Your task to perform on an android device: search for starred emails in the gmail app Image 0: 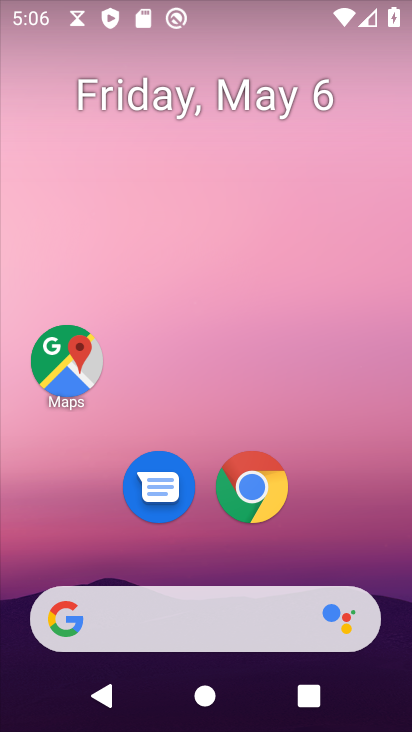
Step 0: drag from (339, 539) to (285, 6)
Your task to perform on an android device: search for starred emails in the gmail app Image 1: 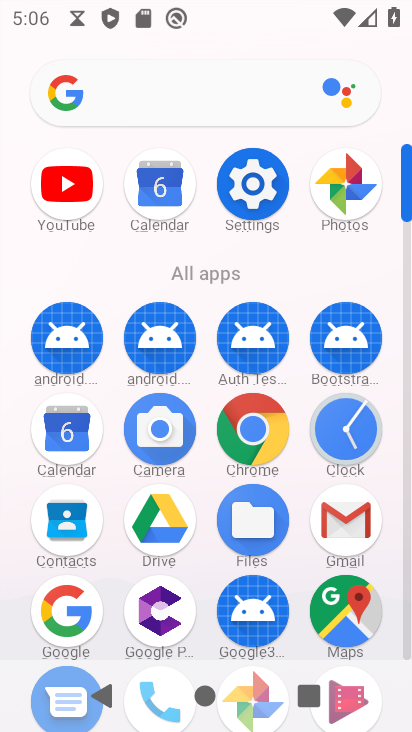
Step 1: click (340, 520)
Your task to perform on an android device: search for starred emails in the gmail app Image 2: 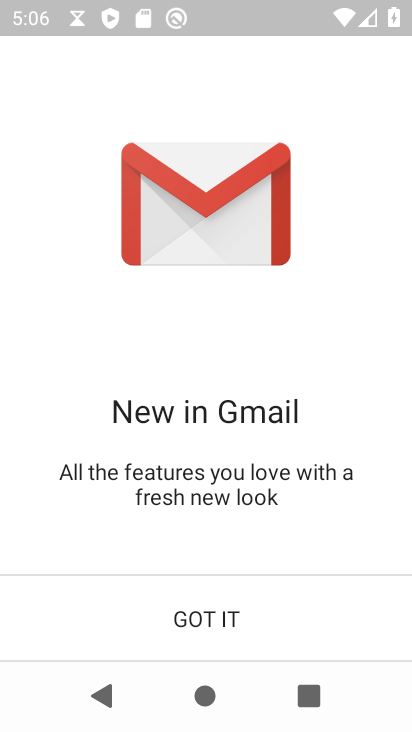
Step 2: click (209, 619)
Your task to perform on an android device: search for starred emails in the gmail app Image 3: 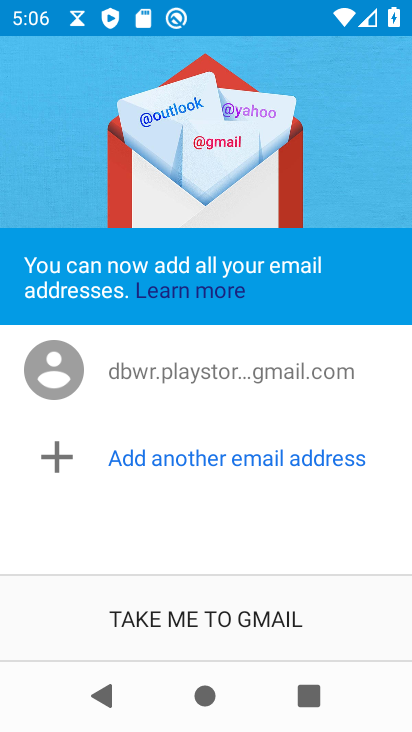
Step 3: click (209, 621)
Your task to perform on an android device: search for starred emails in the gmail app Image 4: 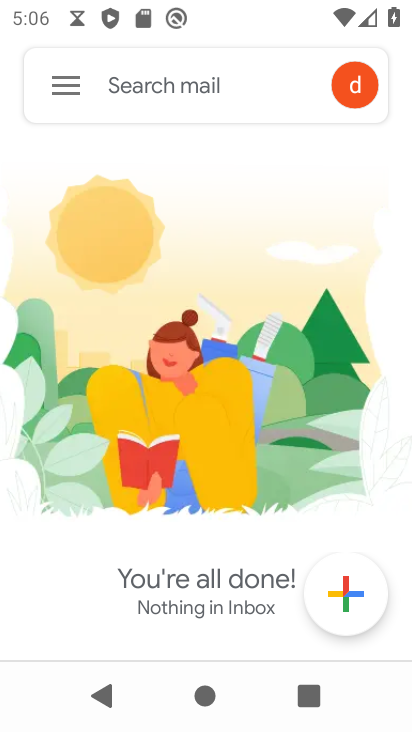
Step 4: click (188, 93)
Your task to perform on an android device: search for starred emails in the gmail app Image 5: 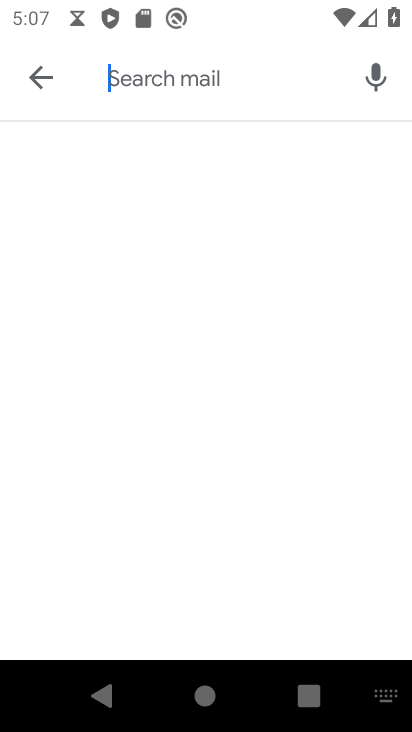
Step 5: type "starred"
Your task to perform on an android device: search for starred emails in the gmail app Image 6: 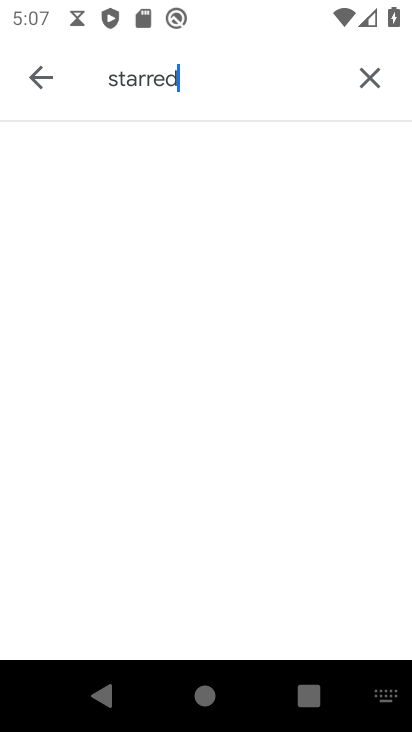
Step 6: type ""
Your task to perform on an android device: search for starred emails in the gmail app Image 7: 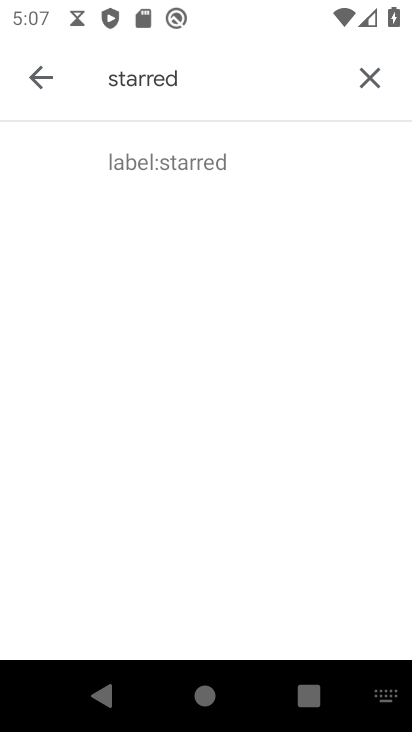
Step 7: click (187, 152)
Your task to perform on an android device: search for starred emails in the gmail app Image 8: 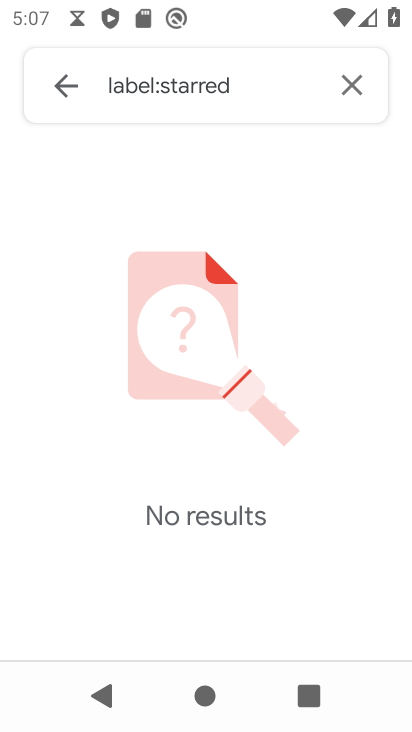
Step 8: task complete